Your task to perform on an android device: Go to internet settings Image 0: 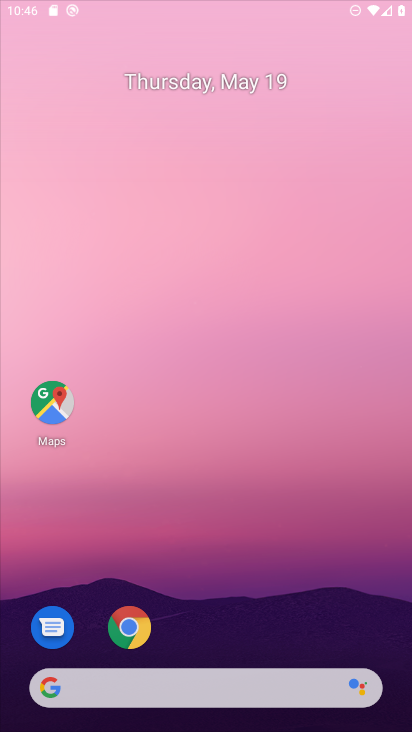
Step 0: drag from (27, 44) to (234, 616)
Your task to perform on an android device: Go to internet settings Image 1: 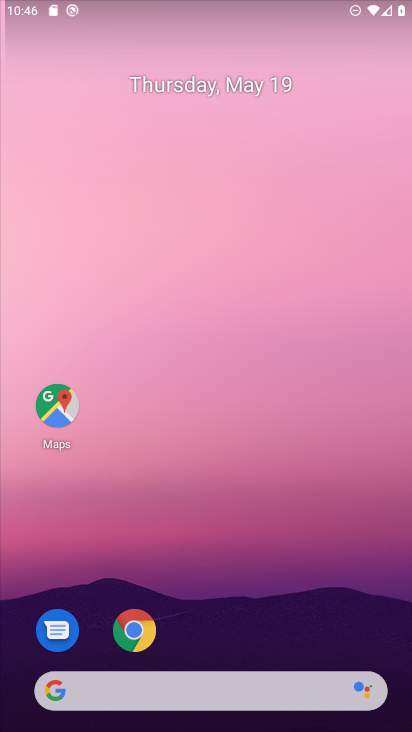
Step 1: drag from (11, 191) to (387, 377)
Your task to perform on an android device: Go to internet settings Image 2: 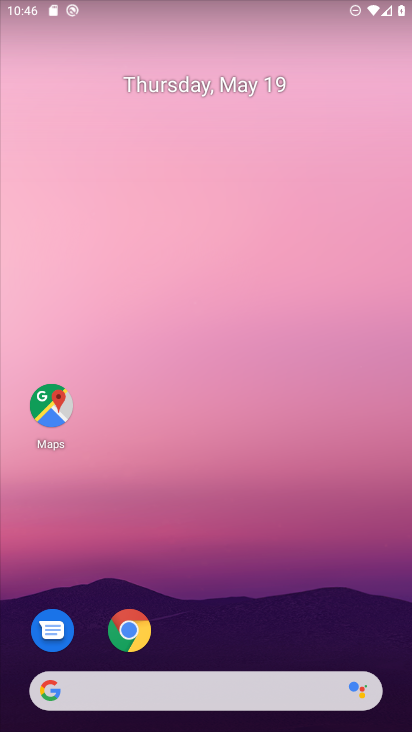
Step 2: drag from (9, 249) to (372, 391)
Your task to perform on an android device: Go to internet settings Image 3: 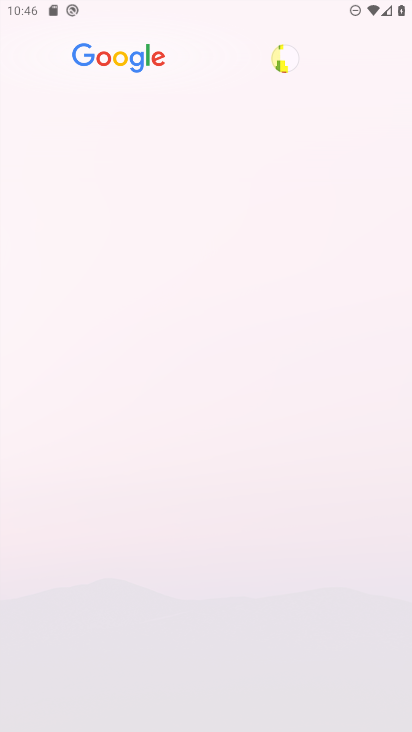
Step 3: drag from (9, 205) to (383, 713)
Your task to perform on an android device: Go to internet settings Image 4: 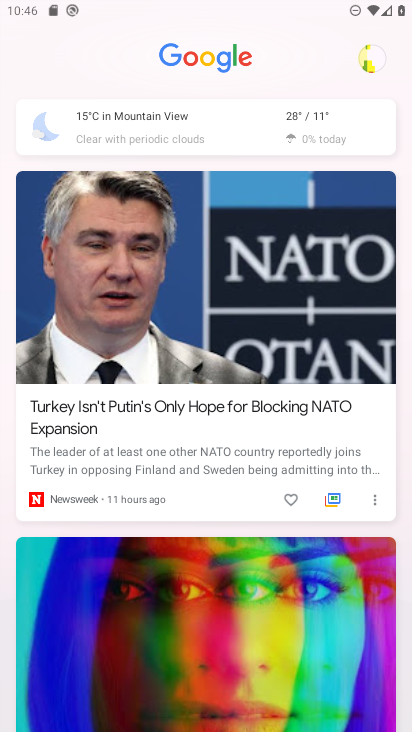
Step 4: press home button
Your task to perform on an android device: Go to internet settings Image 5: 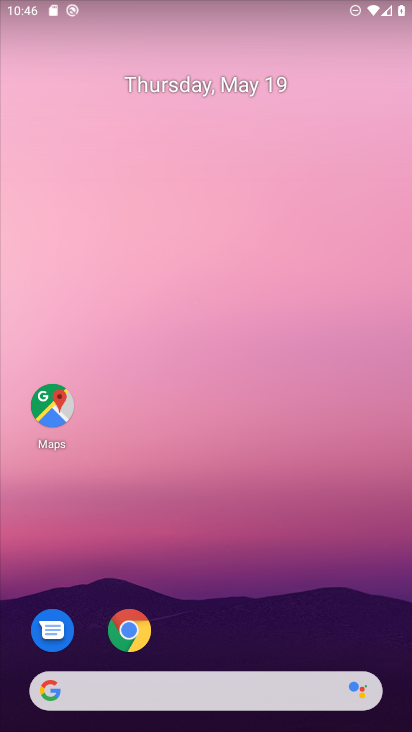
Step 5: drag from (250, 637) to (193, 184)
Your task to perform on an android device: Go to internet settings Image 6: 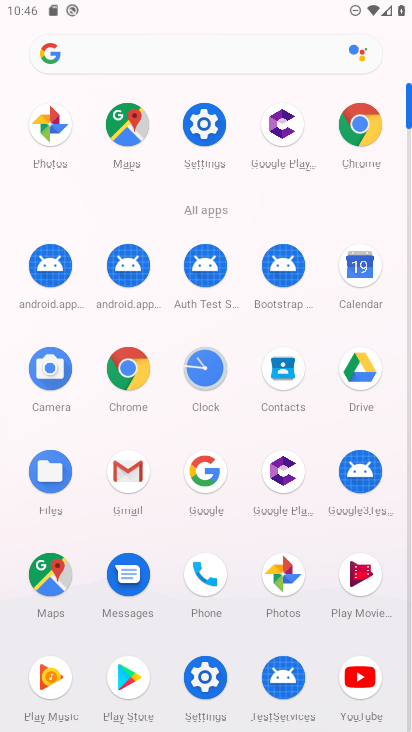
Step 6: click (184, 118)
Your task to perform on an android device: Go to internet settings Image 7: 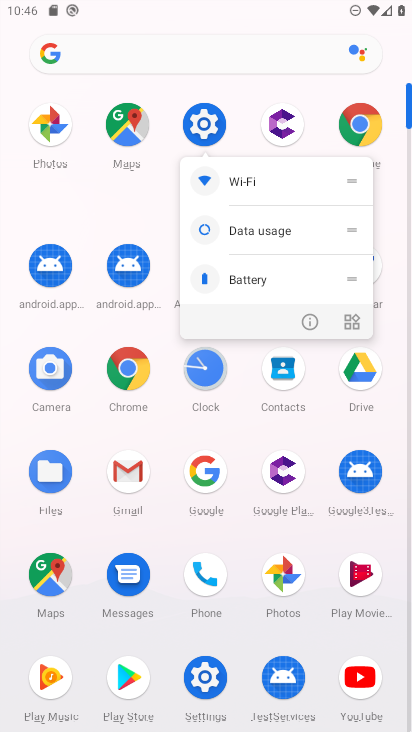
Step 7: click (209, 132)
Your task to perform on an android device: Go to internet settings Image 8: 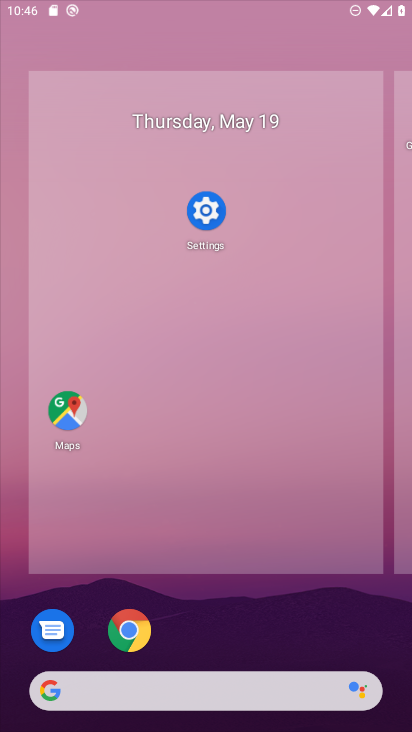
Step 8: click (202, 121)
Your task to perform on an android device: Go to internet settings Image 9: 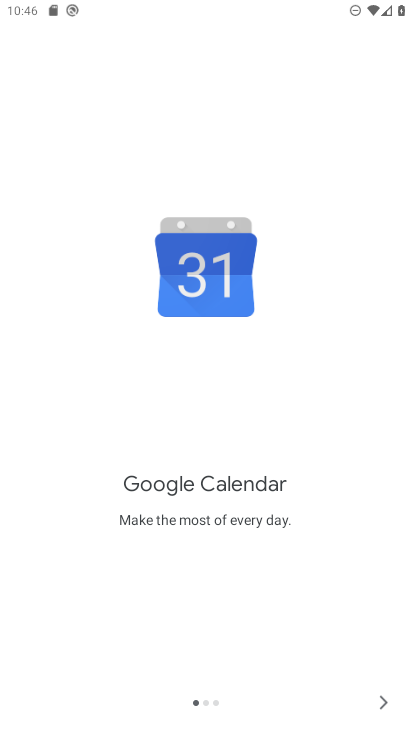
Step 9: click (386, 700)
Your task to perform on an android device: Go to internet settings Image 10: 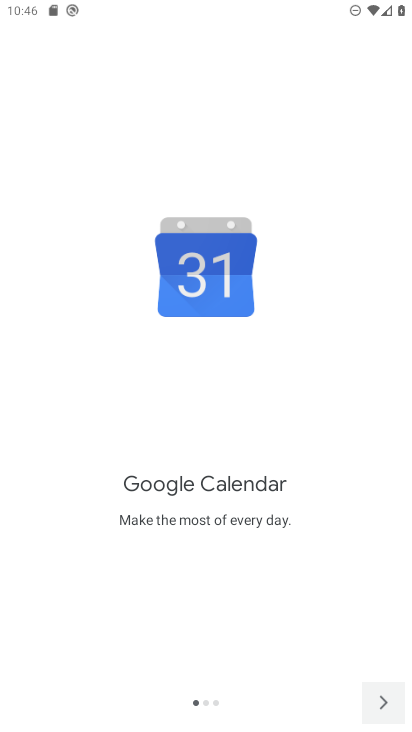
Step 10: click (389, 697)
Your task to perform on an android device: Go to internet settings Image 11: 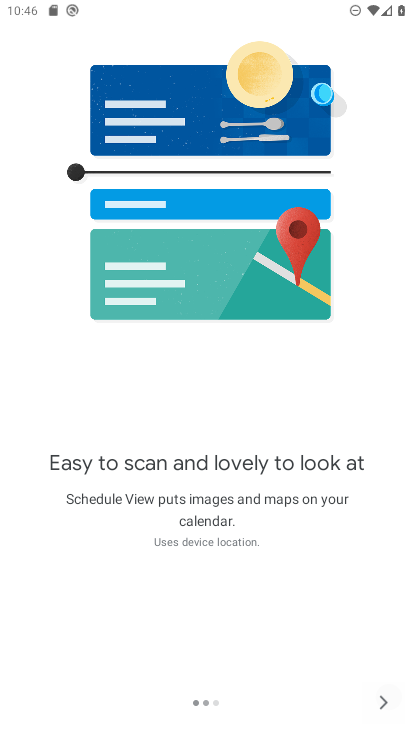
Step 11: click (381, 702)
Your task to perform on an android device: Go to internet settings Image 12: 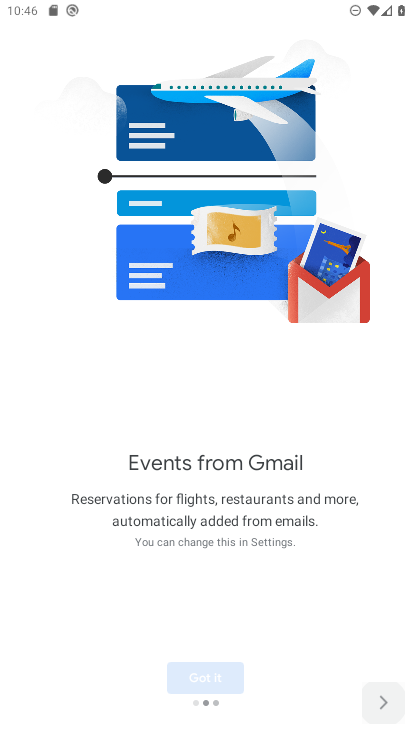
Step 12: click (379, 708)
Your task to perform on an android device: Go to internet settings Image 13: 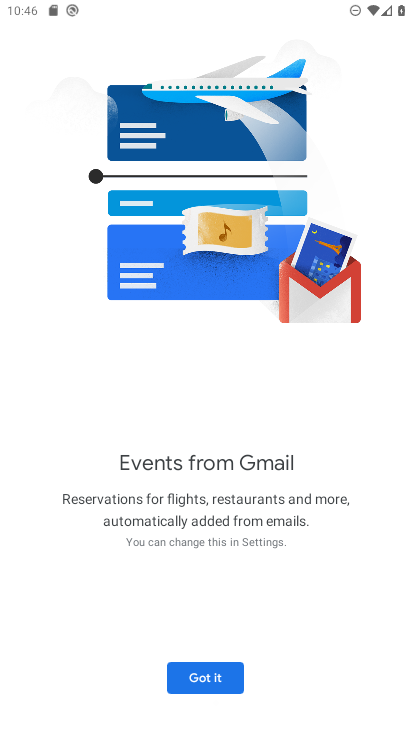
Step 13: click (379, 708)
Your task to perform on an android device: Go to internet settings Image 14: 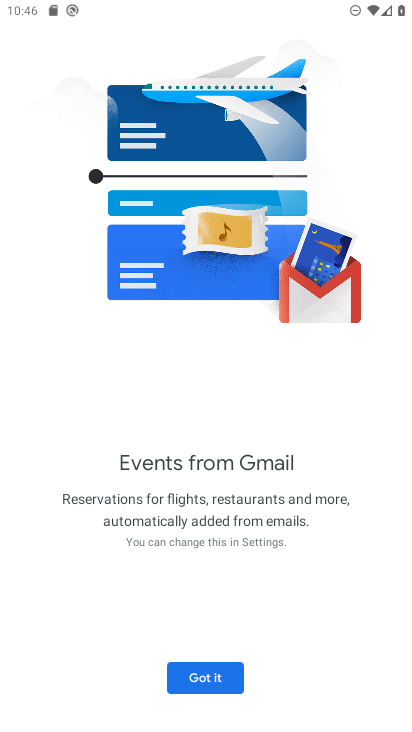
Step 14: click (376, 706)
Your task to perform on an android device: Go to internet settings Image 15: 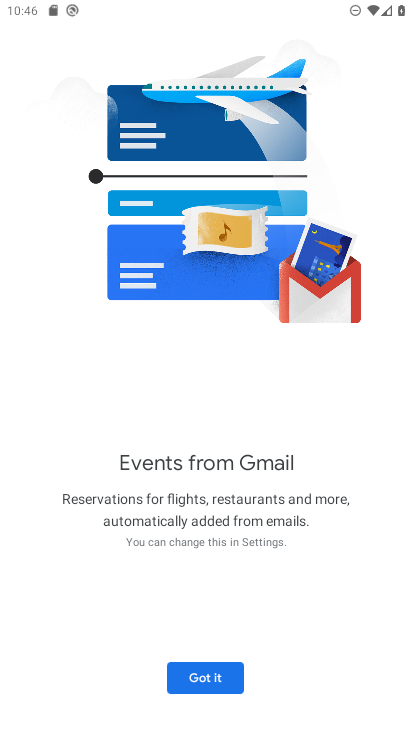
Step 15: click (239, 663)
Your task to perform on an android device: Go to internet settings Image 16: 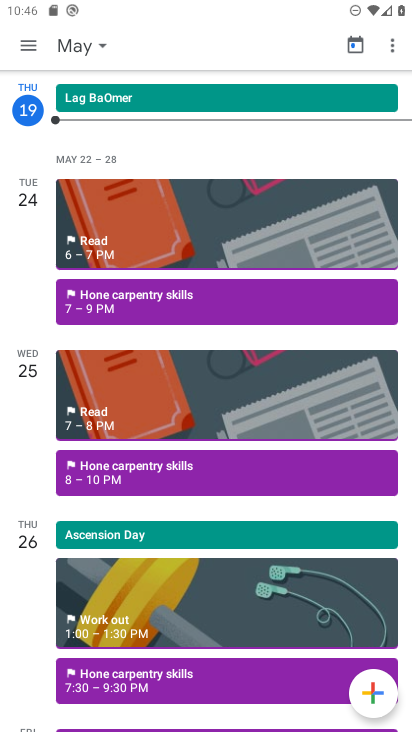
Step 16: press back button
Your task to perform on an android device: Go to internet settings Image 17: 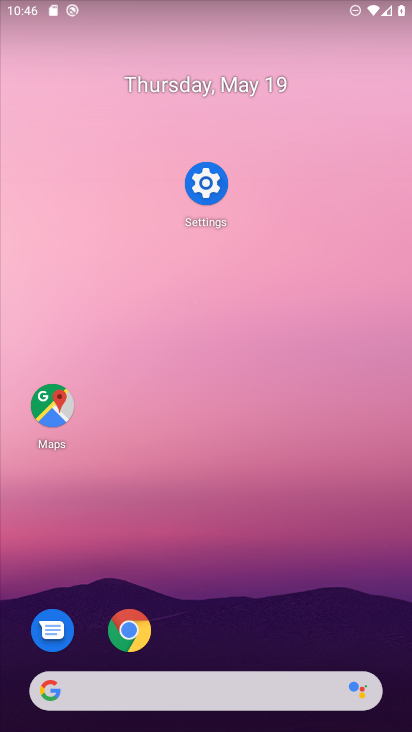
Step 17: drag from (301, 607) to (186, 67)
Your task to perform on an android device: Go to internet settings Image 18: 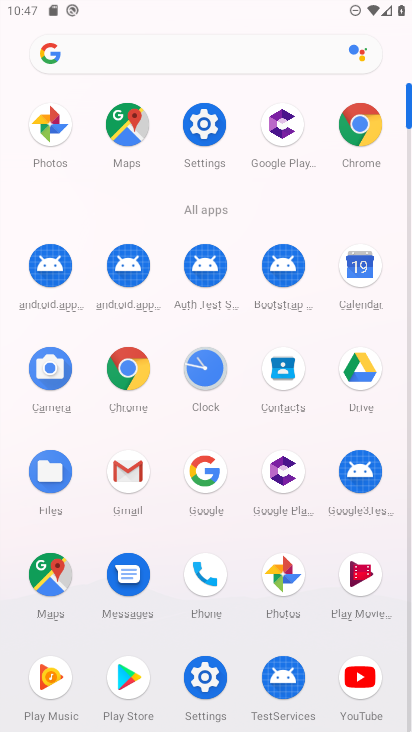
Step 18: click (201, 120)
Your task to perform on an android device: Go to internet settings Image 19: 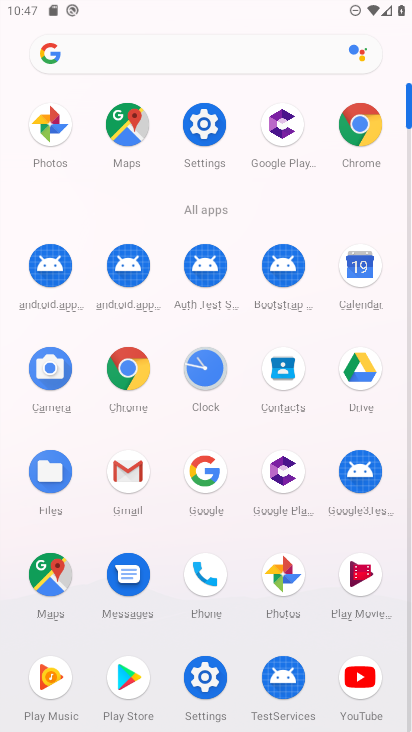
Step 19: click (201, 120)
Your task to perform on an android device: Go to internet settings Image 20: 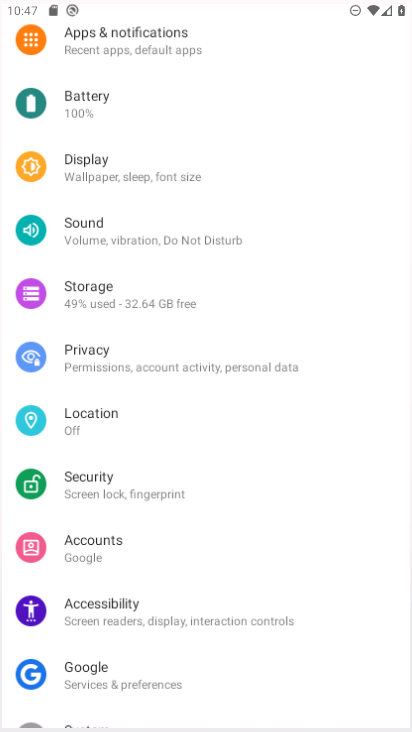
Step 20: click (202, 121)
Your task to perform on an android device: Go to internet settings Image 21: 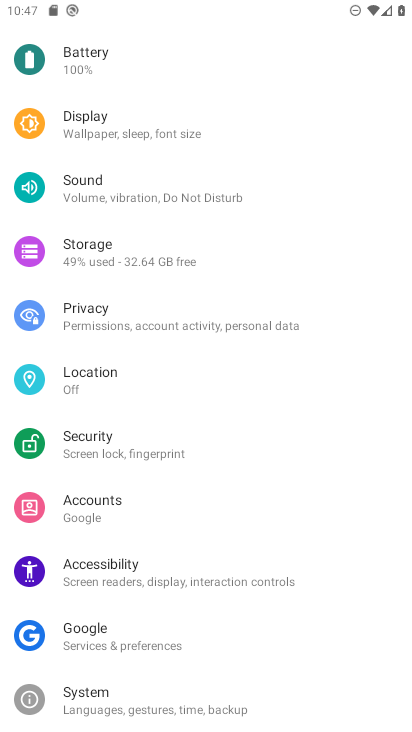
Step 21: click (202, 121)
Your task to perform on an android device: Go to internet settings Image 22: 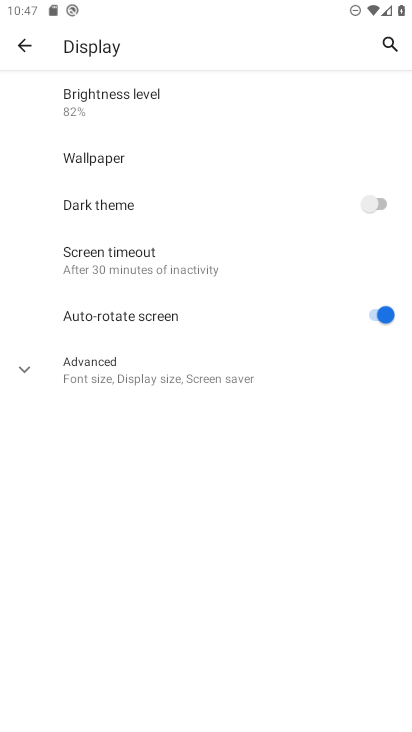
Step 22: drag from (151, 170) to (221, 587)
Your task to perform on an android device: Go to internet settings Image 23: 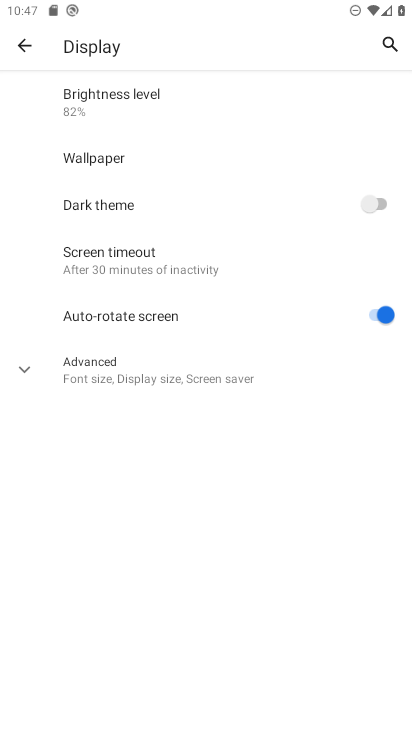
Step 23: click (19, 48)
Your task to perform on an android device: Go to internet settings Image 24: 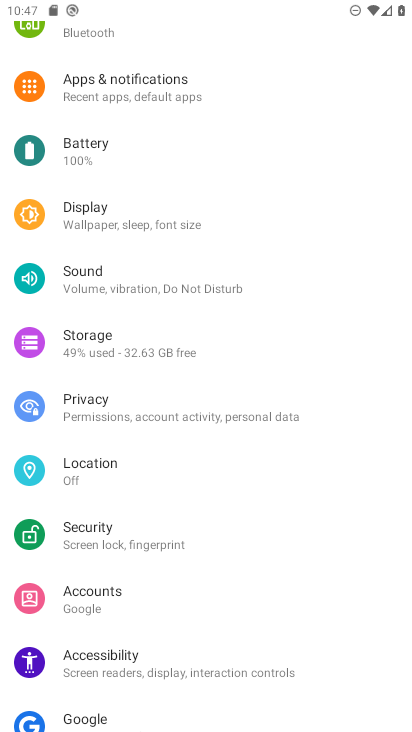
Step 24: drag from (138, 95) to (209, 552)
Your task to perform on an android device: Go to internet settings Image 25: 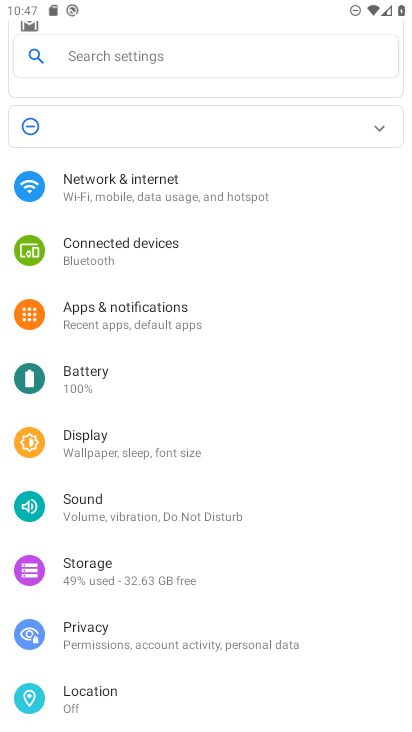
Step 25: click (153, 188)
Your task to perform on an android device: Go to internet settings Image 26: 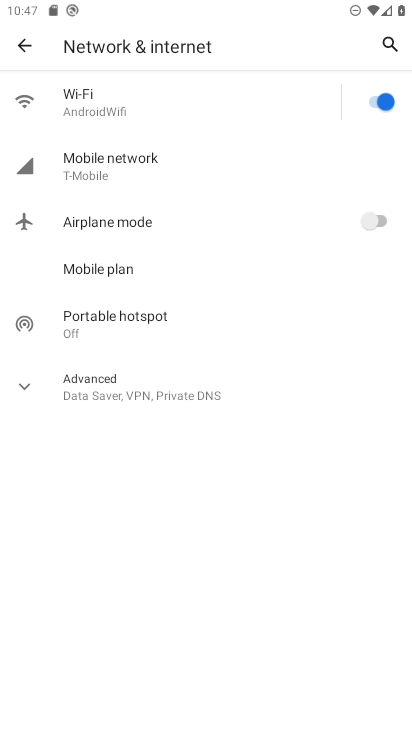
Step 26: task complete